Your task to perform on an android device: install app "Speedtest by Ookla" Image 0: 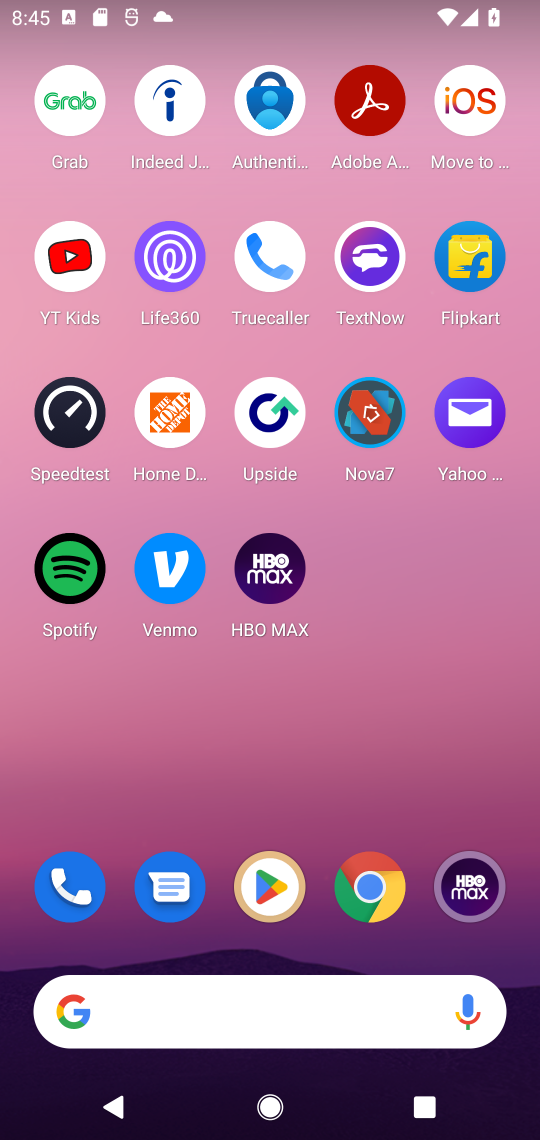
Step 0: click (259, 876)
Your task to perform on an android device: install app "Speedtest by Ookla" Image 1: 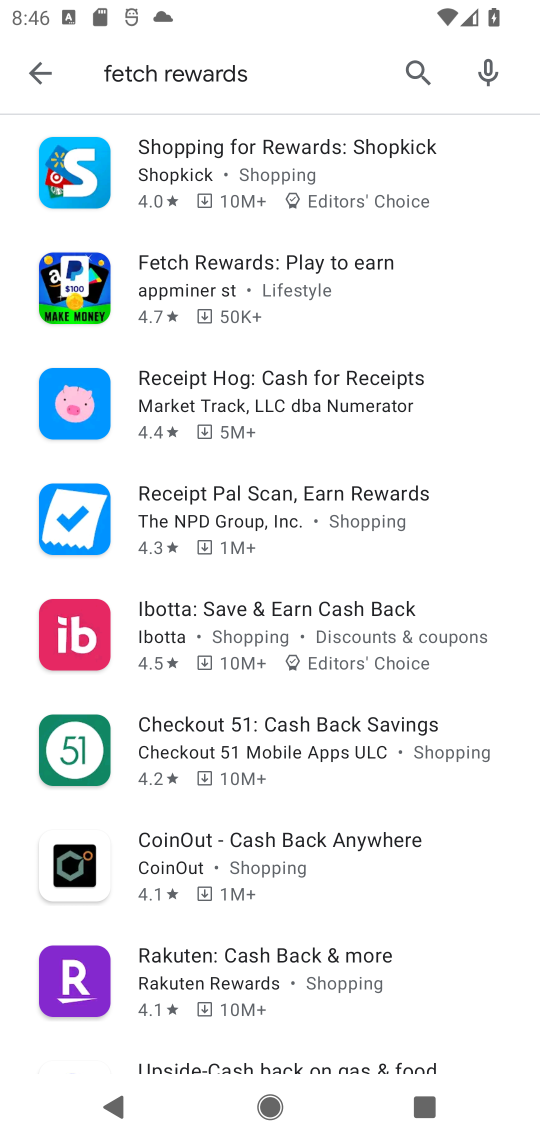
Step 1: click (418, 69)
Your task to perform on an android device: install app "Speedtest by Ookla" Image 2: 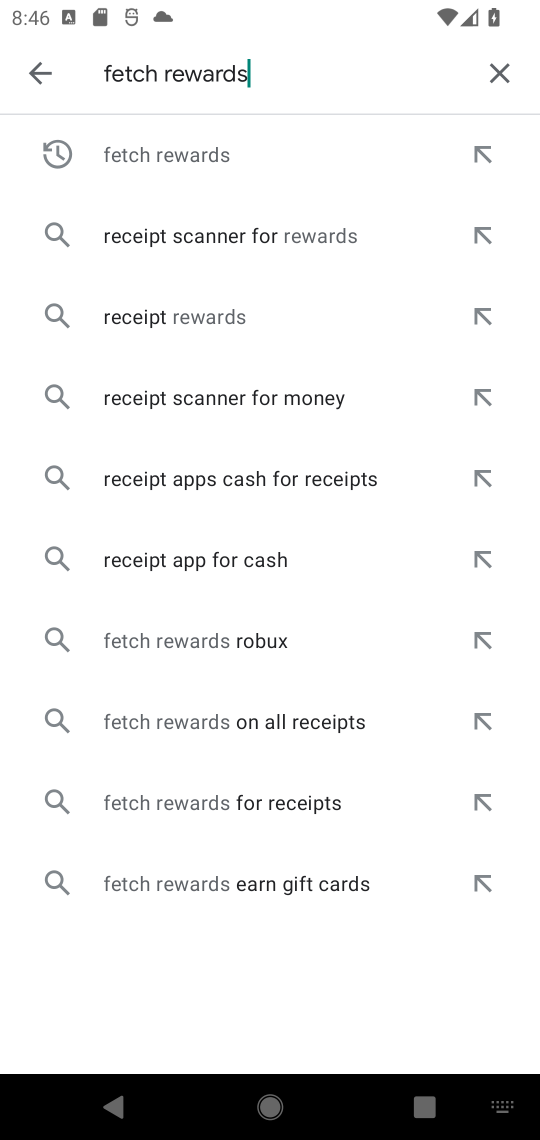
Step 2: click (495, 71)
Your task to perform on an android device: install app "Speedtest by Ookla" Image 3: 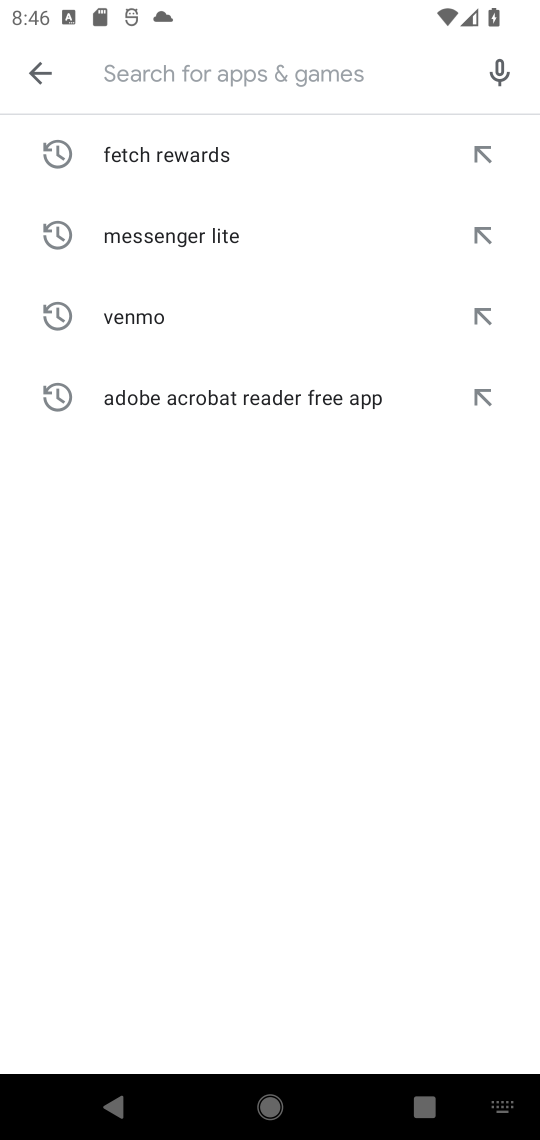
Step 3: type "Speedtest by Ookla"
Your task to perform on an android device: install app "Speedtest by Ookla" Image 4: 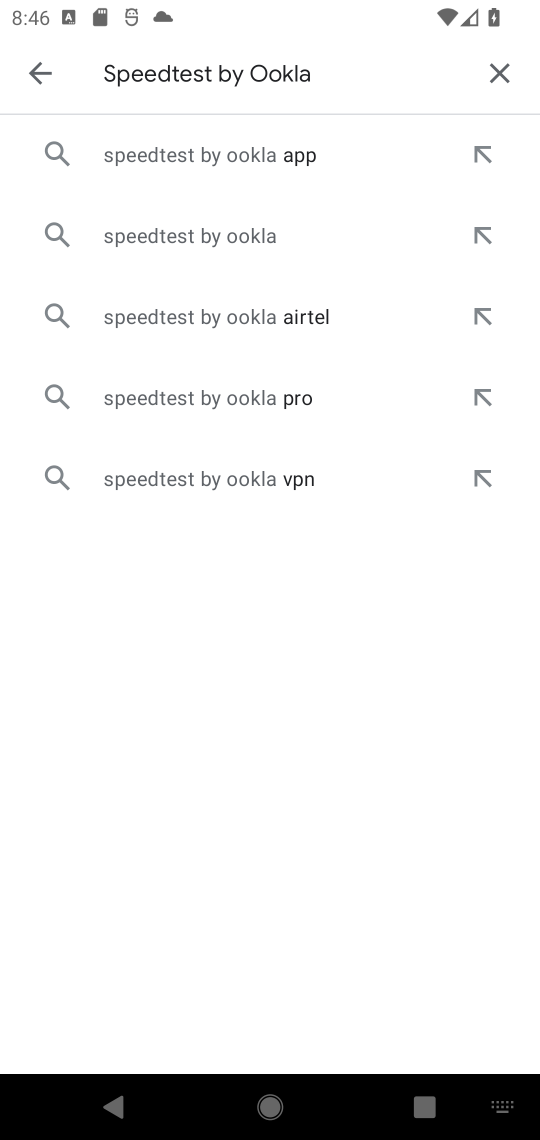
Step 4: click (237, 154)
Your task to perform on an android device: install app "Speedtest by Ookla" Image 5: 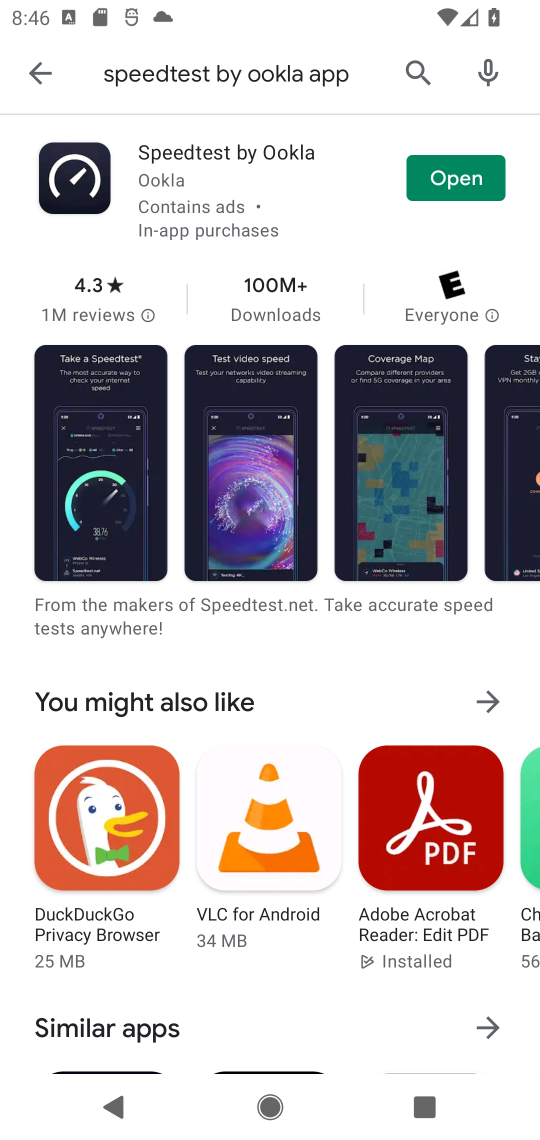
Step 5: task complete